Your task to perform on an android device: add a contact Image 0: 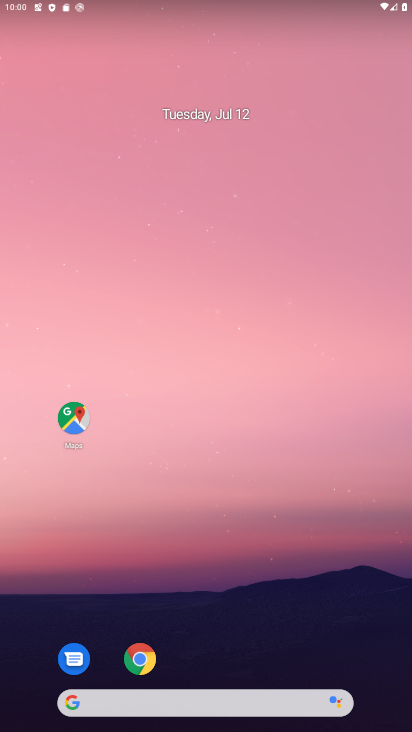
Step 0: drag from (347, 521) to (305, 167)
Your task to perform on an android device: add a contact Image 1: 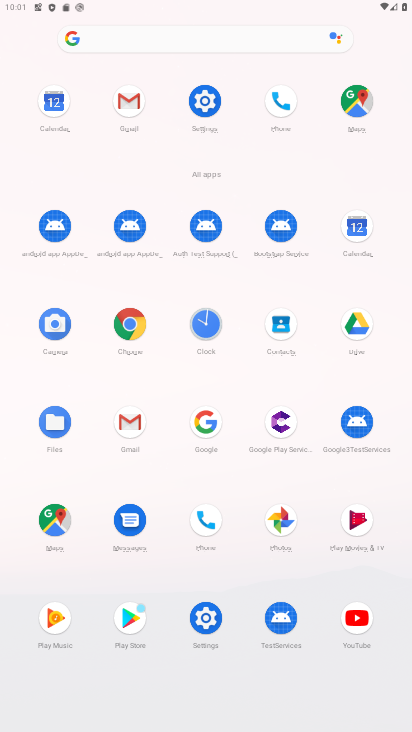
Step 1: click (278, 325)
Your task to perform on an android device: add a contact Image 2: 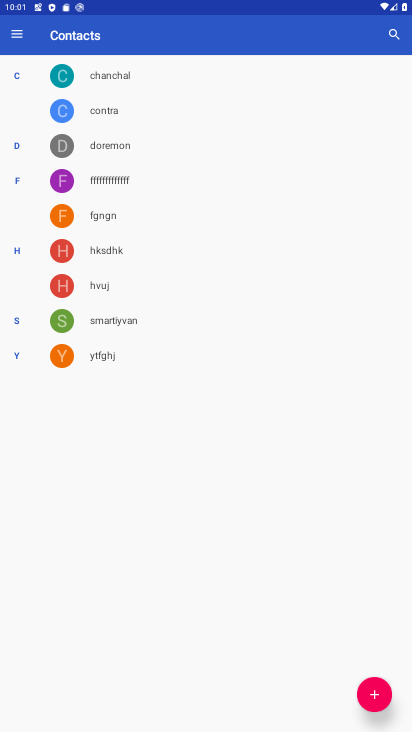
Step 2: click (278, 326)
Your task to perform on an android device: add a contact Image 3: 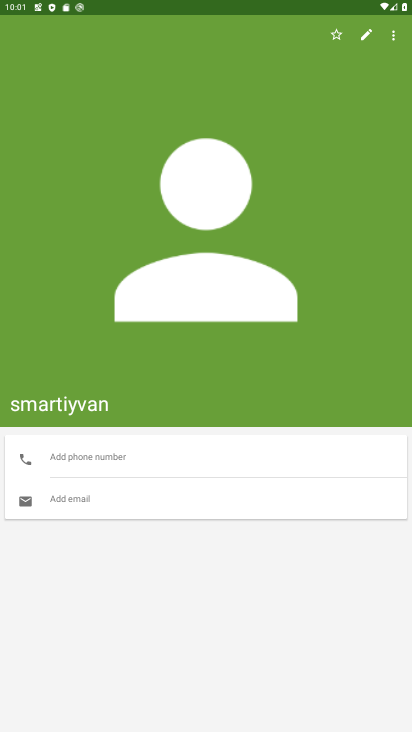
Step 3: press back button
Your task to perform on an android device: add a contact Image 4: 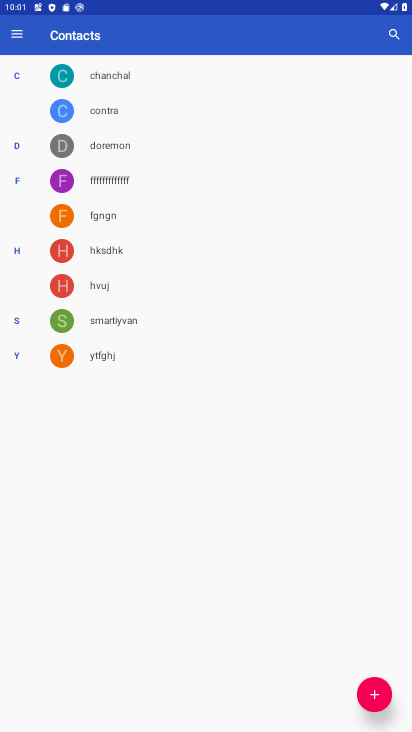
Step 4: click (368, 676)
Your task to perform on an android device: add a contact Image 5: 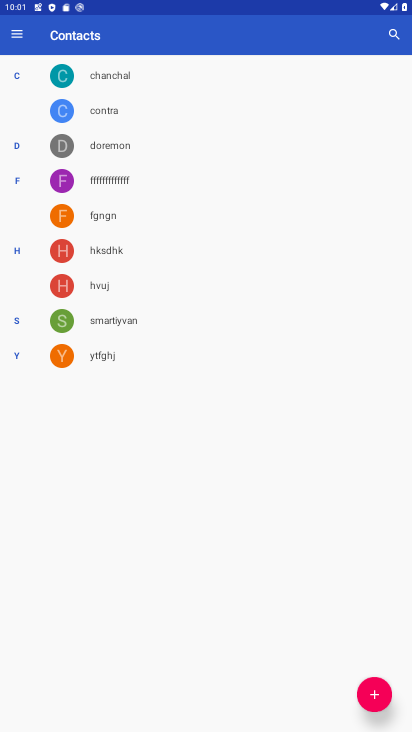
Step 5: click (375, 693)
Your task to perform on an android device: add a contact Image 6: 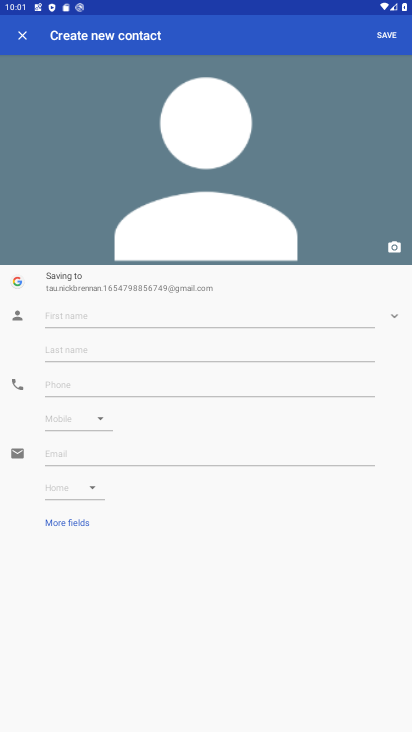
Step 6: click (111, 313)
Your task to perform on an android device: add a contact Image 7: 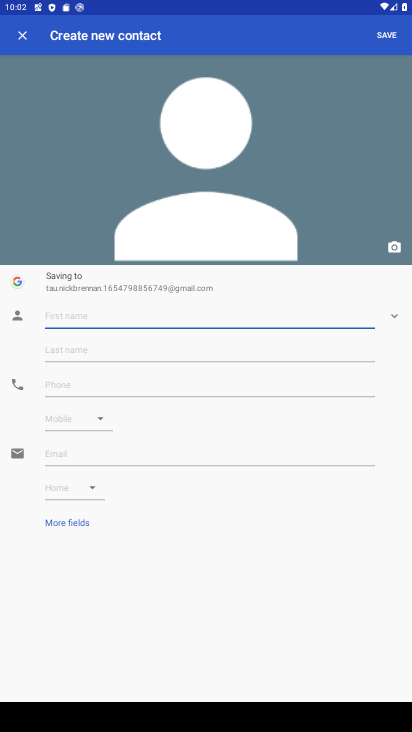
Step 7: type "jgjdfgjfjjhd"
Your task to perform on an android device: add a contact Image 8: 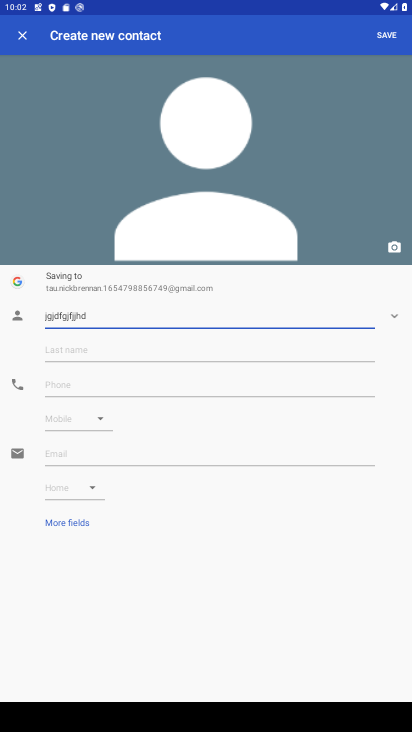
Step 8: click (113, 340)
Your task to perform on an android device: add a contact Image 9: 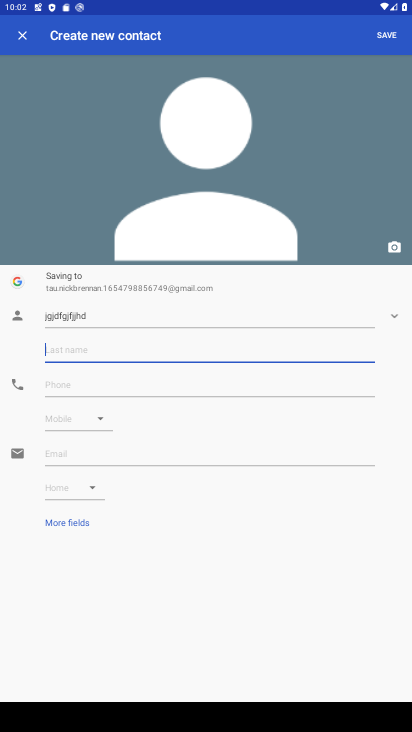
Step 9: type "hsrtntjdjsj"
Your task to perform on an android device: add a contact Image 10: 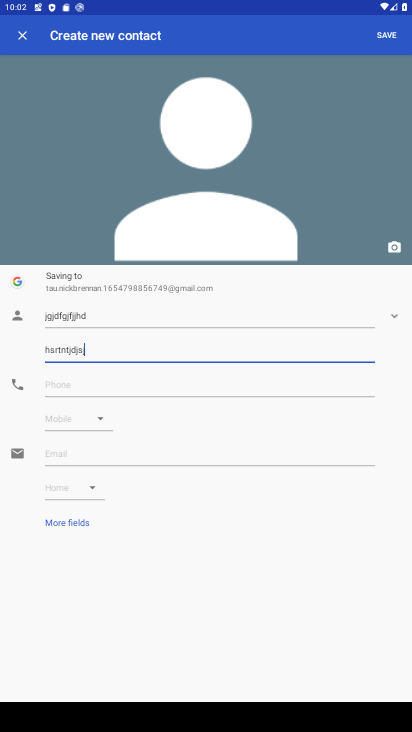
Step 10: click (47, 377)
Your task to perform on an android device: add a contact Image 11: 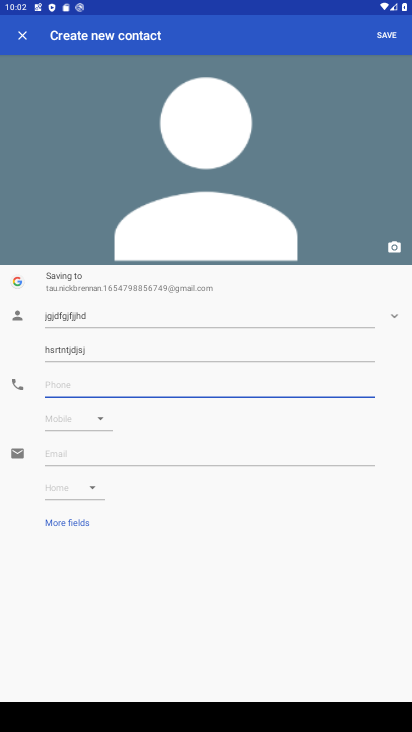
Step 11: type "7677776767756768"
Your task to perform on an android device: add a contact Image 12: 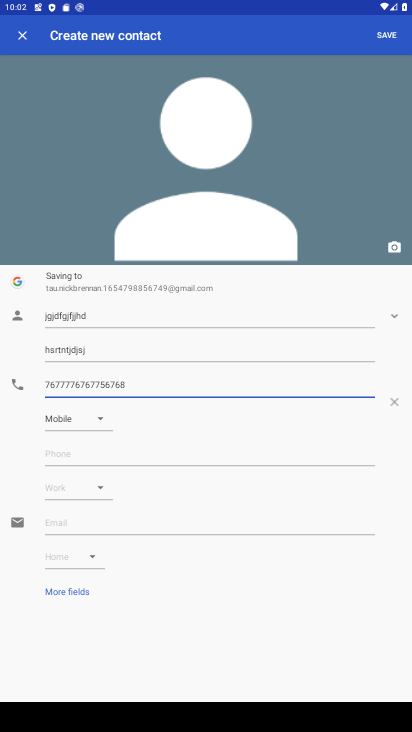
Step 12: task complete